Your task to perform on an android device: Open Yahoo.com Image 0: 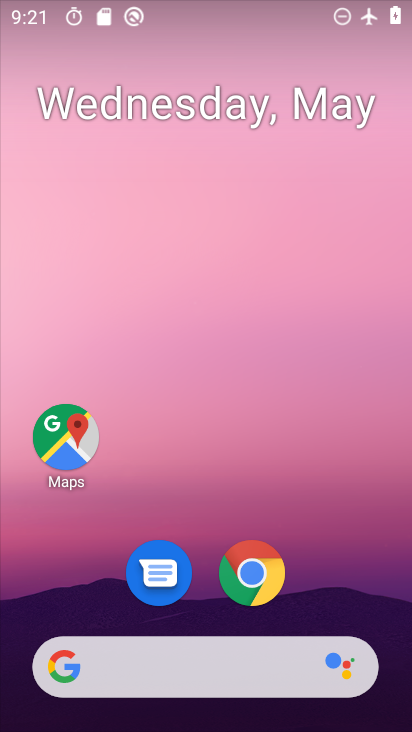
Step 0: click (248, 573)
Your task to perform on an android device: Open Yahoo.com Image 1: 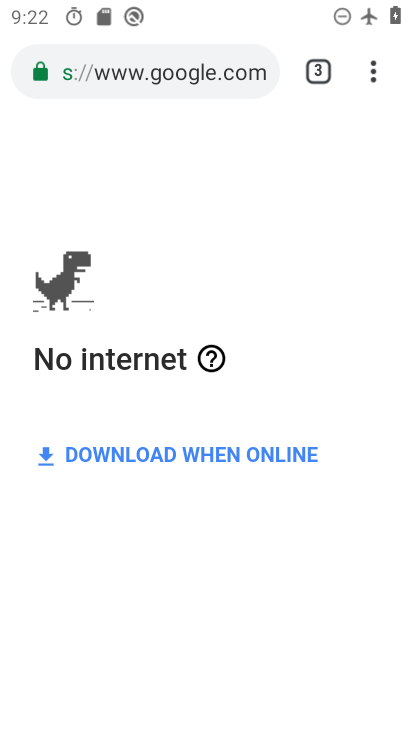
Step 1: task complete